Your task to perform on an android device: check storage Image 0: 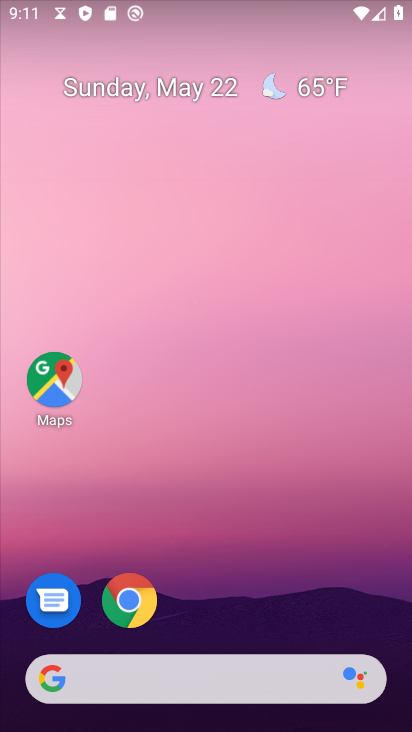
Step 0: drag from (204, 593) to (191, 228)
Your task to perform on an android device: check storage Image 1: 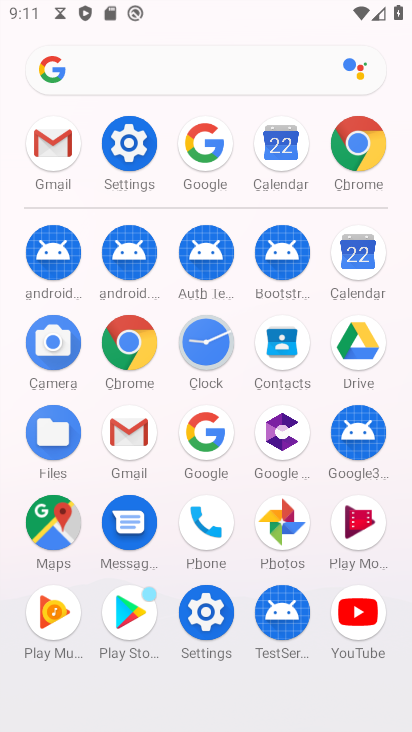
Step 1: click (131, 162)
Your task to perform on an android device: check storage Image 2: 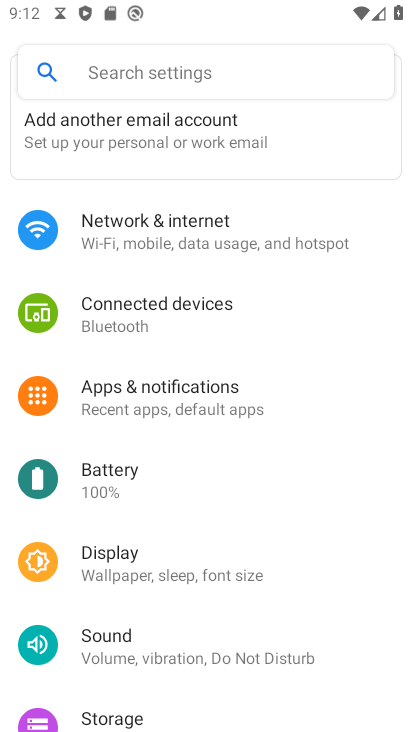
Step 2: click (122, 721)
Your task to perform on an android device: check storage Image 3: 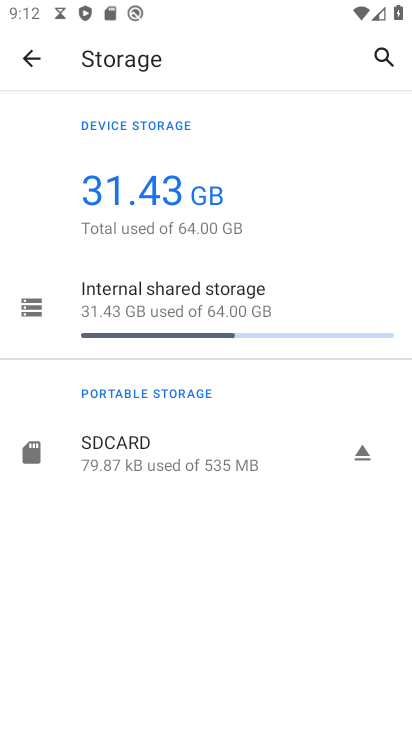
Step 3: task complete